Your task to perform on an android device: toggle pop-ups in chrome Image 0: 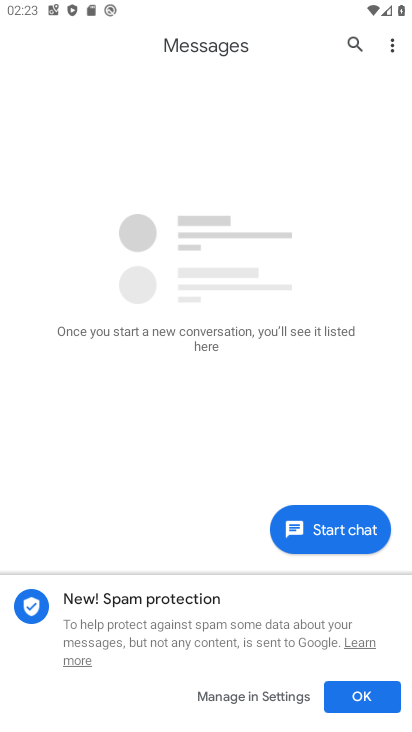
Step 0: press home button
Your task to perform on an android device: toggle pop-ups in chrome Image 1: 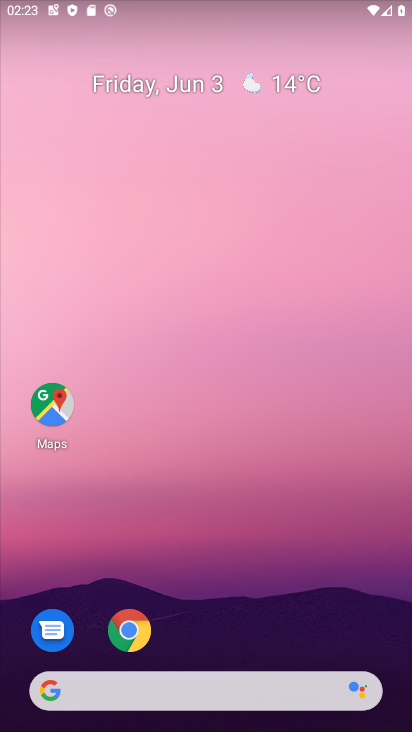
Step 1: click (126, 630)
Your task to perform on an android device: toggle pop-ups in chrome Image 2: 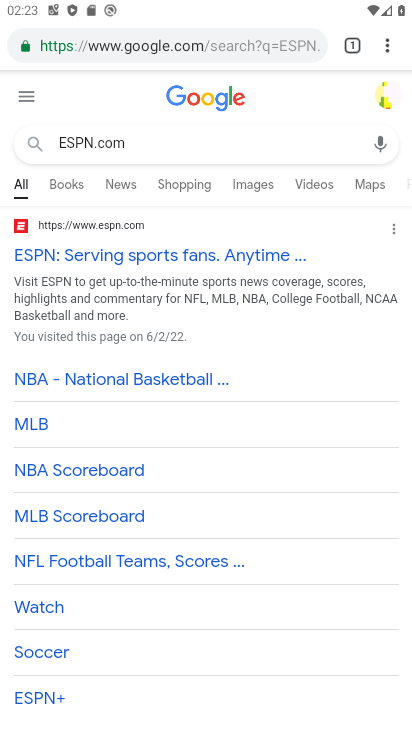
Step 2: click (383, 41)
Your task to perform on an android device: toggle pop-ups in chrome Image 3: 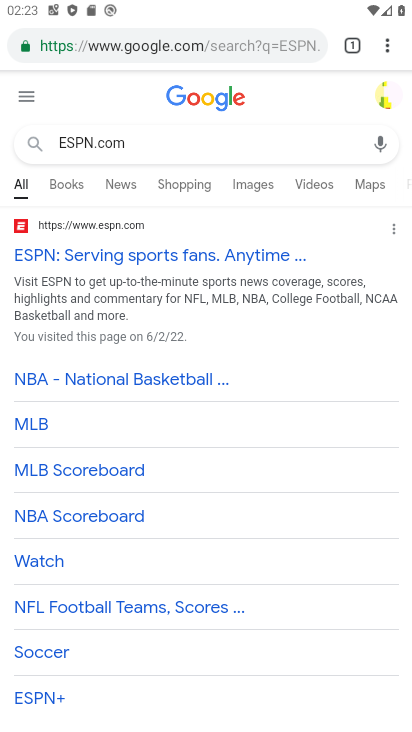
Step 3: click (386, 42)
Your task to perform on an android device: toggle pop-ups in chrome Image 4: 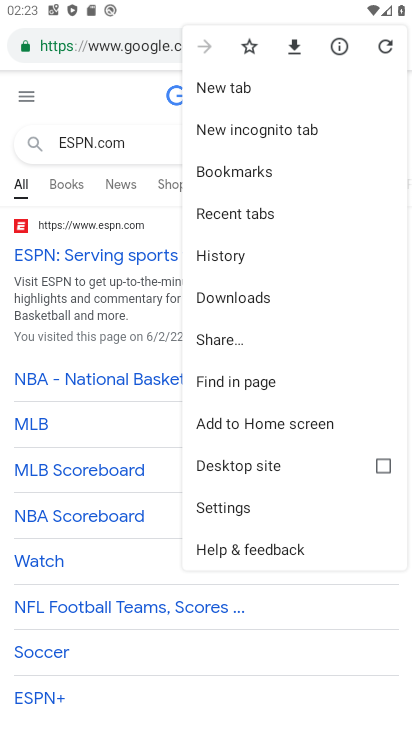
Step 4: click (237, 505)
Your task to perform on an android device: toggle pop-ups in chrome Image 5: 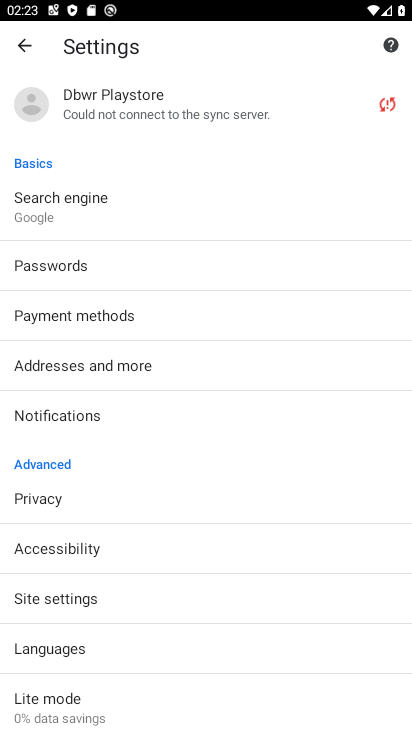
Step 5: click (103, 596)
Your task to perform on an android device: toggle pop-ups in chrome Image 6: 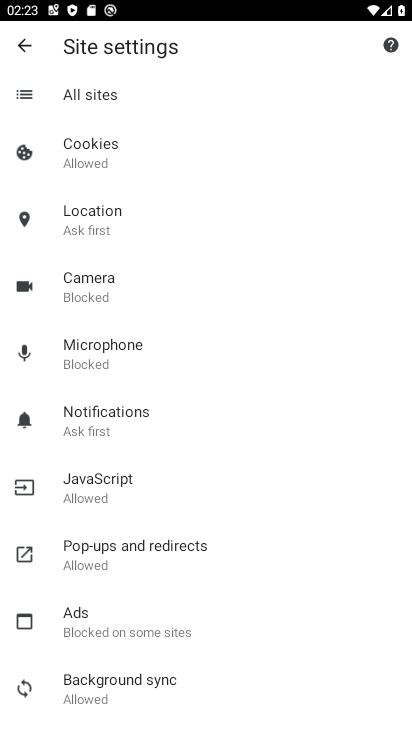
Step 6: click (101, 545)
Your task to perform on an android device: toggle pop-ups in chrome Image 7: 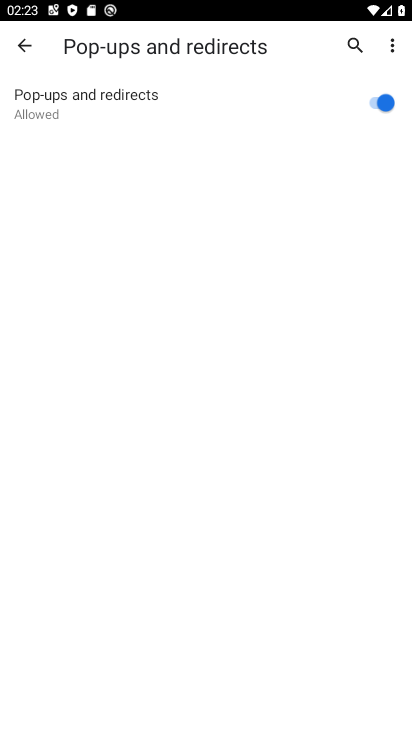
Step 7: click (374, 98)
Your task to perform on an android device: toggle pop-ups in chrome Image 8: 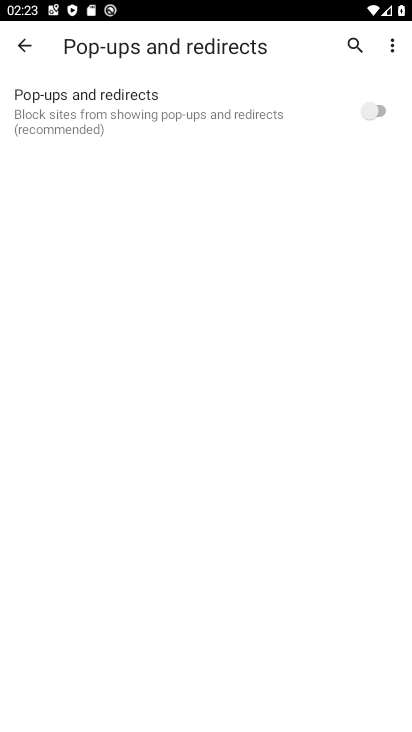
Step 8: task complete